Your task to perform on an android device: Open the calendar and show me this week's events Image 0: 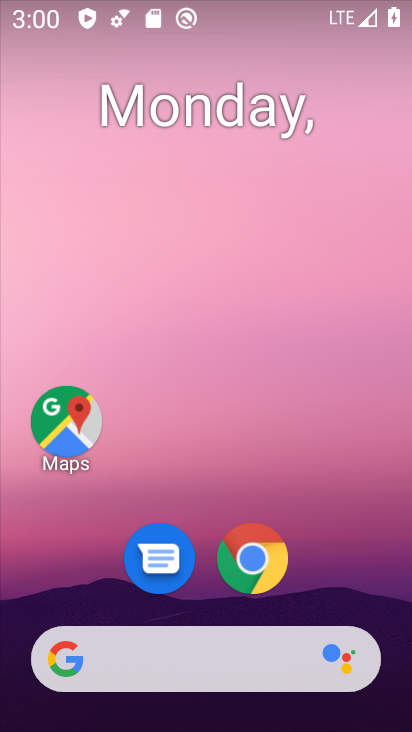
Step 0: press home button
Your task to perform on an android device: Open the calendar and show me this week's events Image 1: 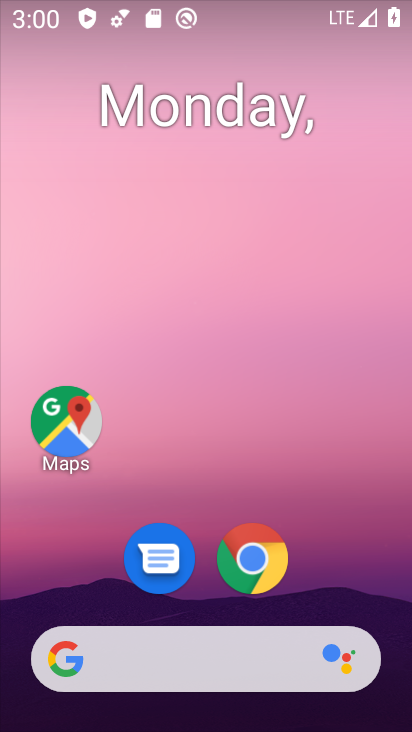
Step 1: drag from (373, 603) to (363, 11)
Your task to perform on an android device: Open the calendar and show me this week's events Image 2: 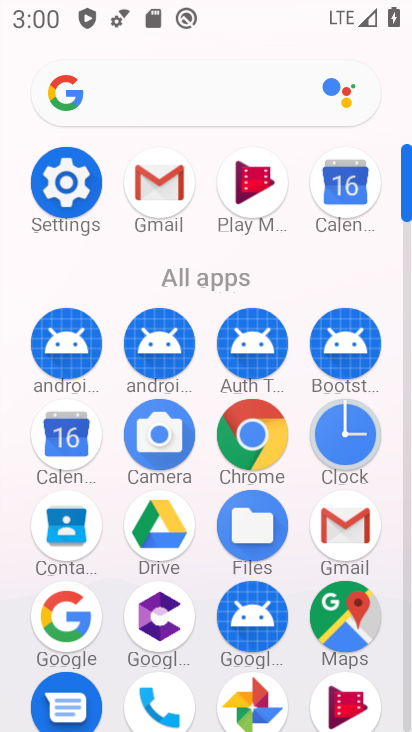
Step 2: click (346, 197)
Your task to perform on an android device: Open the calendar and show me this week's events Image 3: 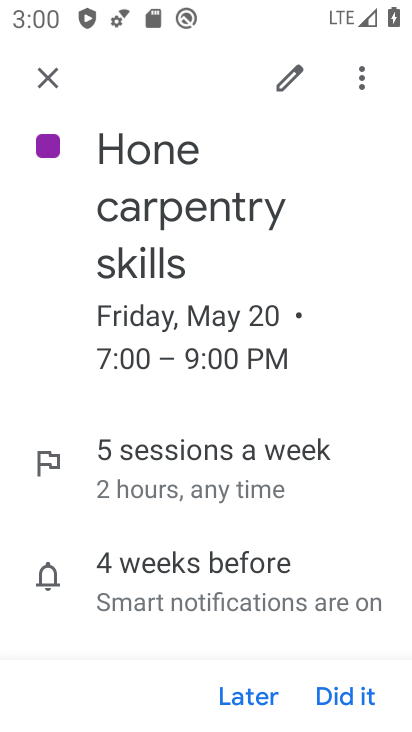
Step 3: click (51, 78)
Your task to perform on an android device: Open the calendar and show me this week's events Image 4: 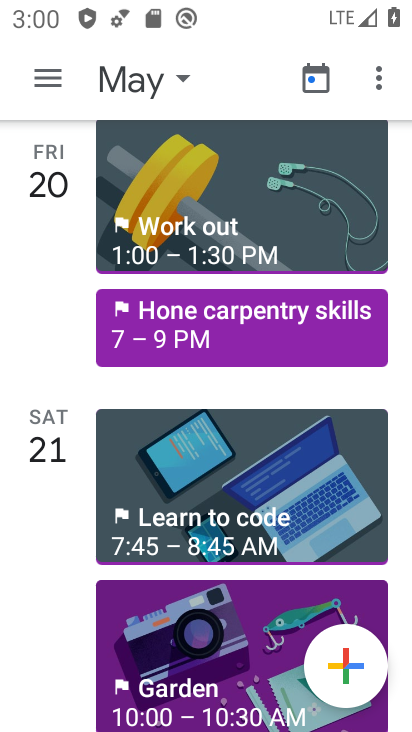
Step 4: click (51, 81)
Your task to perform on an android device: Open the calendar and show me this week's events Image 5: 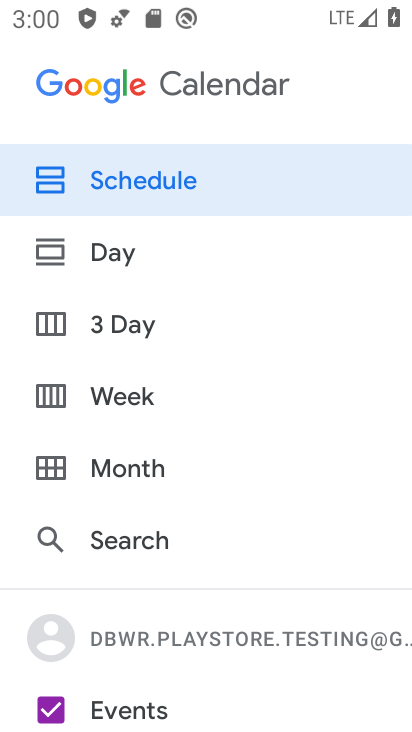
Step 5: click (105, 398)
Your task to perform on an android device: Open the calendar and show me this week's events Image 6: 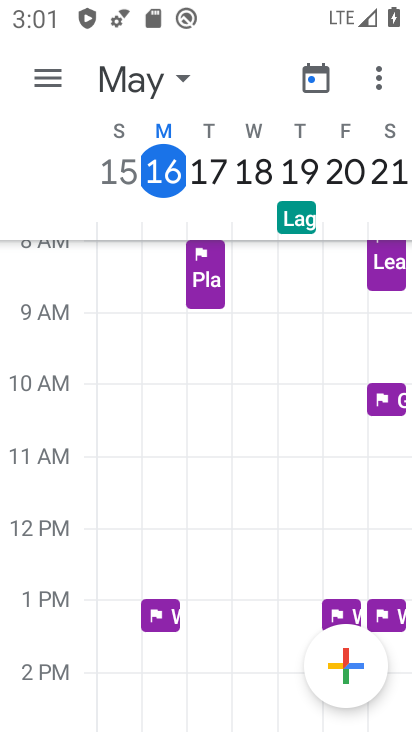
Step 6: click (43, 74)
Your task to perform on an android device: Open the calendar and show me this week's events Image 7: 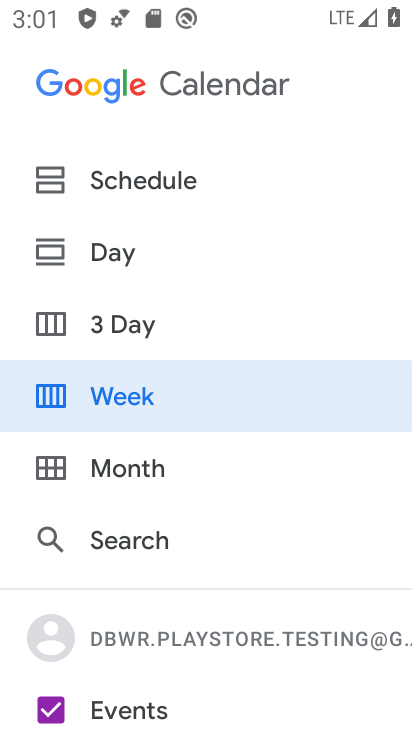
Step 7: drag from (141, 500) to (157, 188)
Your task to perform on an android device: Open the calendar and show me this week's events Image 8: 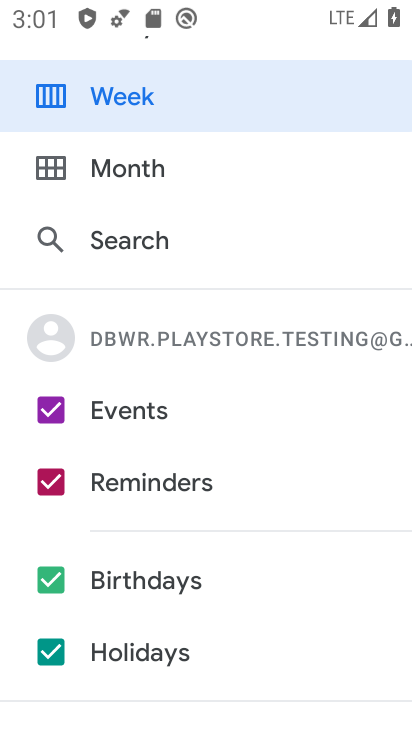
Step 8: click (48, 477)
Your task to perform on an android device: Open the calendar and show me this week's events Image 9: 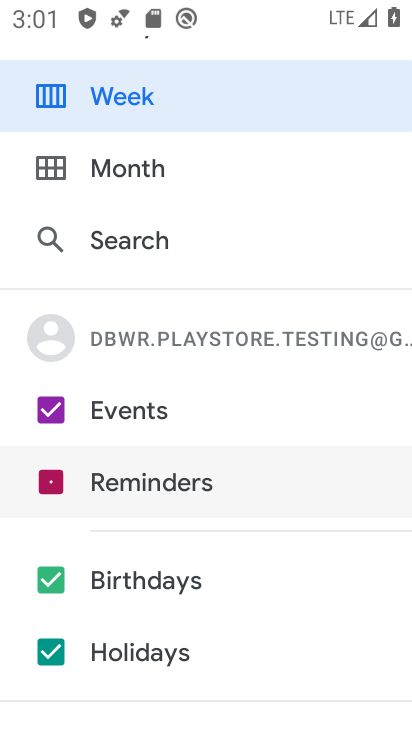
Step 9: click (49, 577)
Your task to perform on an android device: Open the calendar and show me this week's events Image 10: 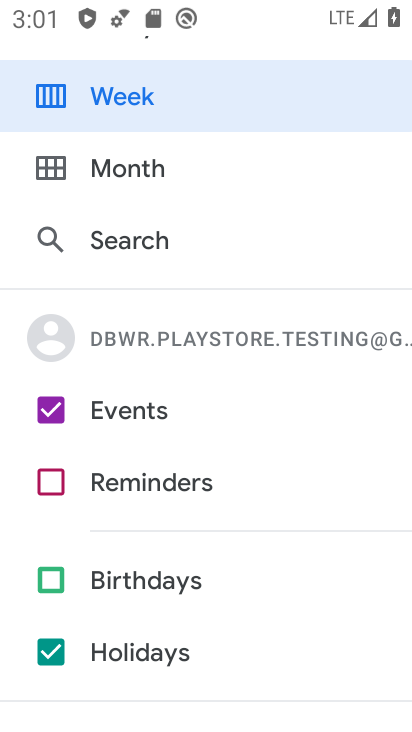
Step 10: click (53, 647)
Your task to perform on an android device: Open the calendar and show me this week's events Image 11: 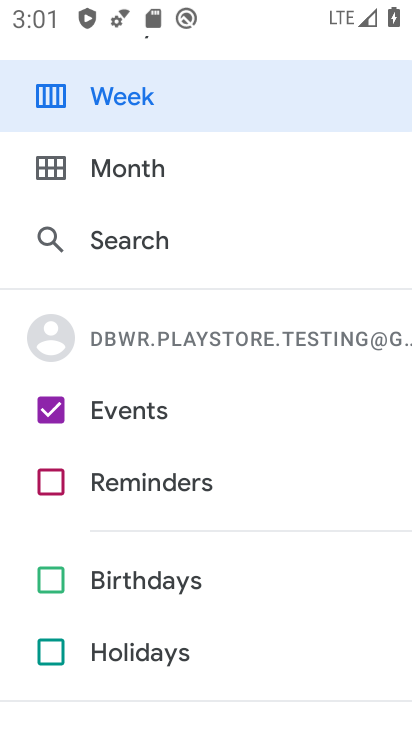
Step 11: drag from (109, 122) to (142, 488)
Your task to perform on an android device: Open the calendar and show me this week's events Image 12: 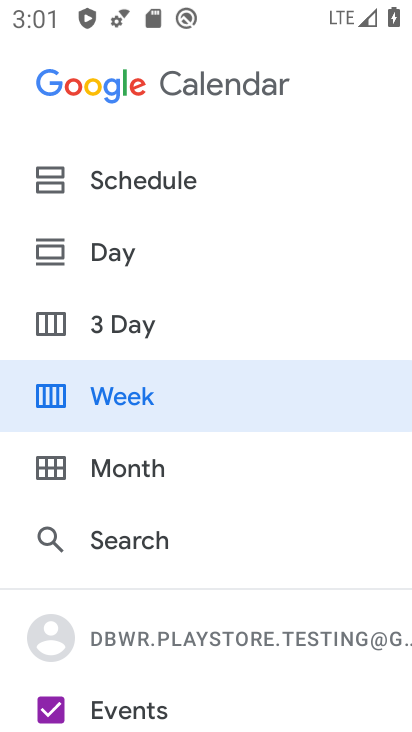
Step 12: click (84, 404)
Your task to perform on an android device: Open the calendar and show me this week's events Image 13: 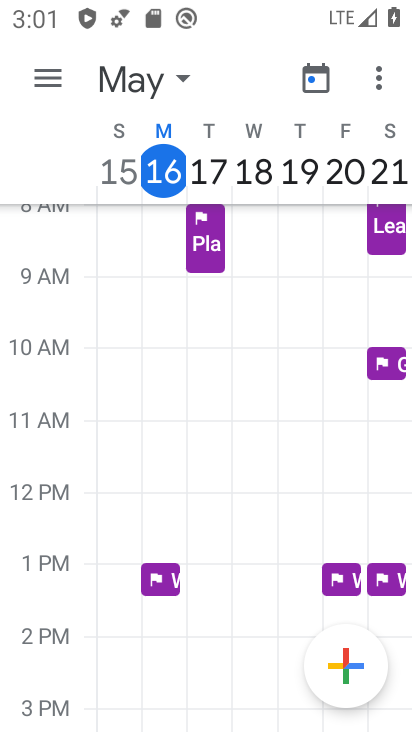
Step 13: task complete